Your task to perform on an android device: change the clock display to digital Image 0: 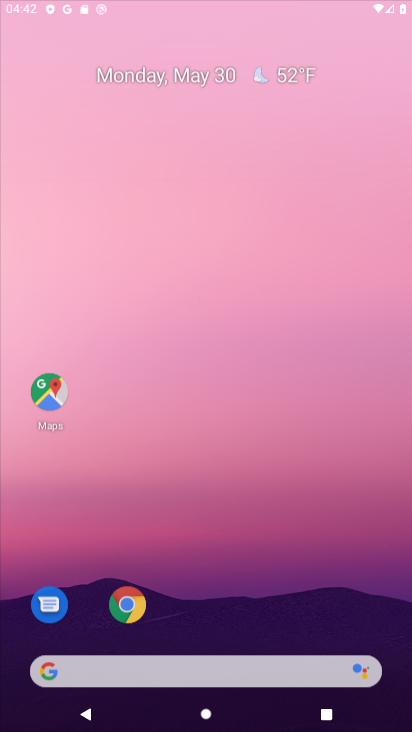
Step 0: press home button
Your task to perform on an android device: change the clock display to digital Image 1: 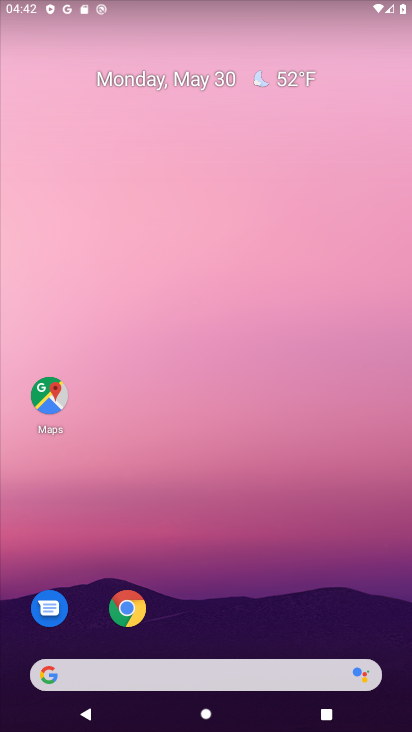
Step 1: drag from (137, 336) to (137, 302)
Your task to perform on an android device: change the clock display to digital Image 2: 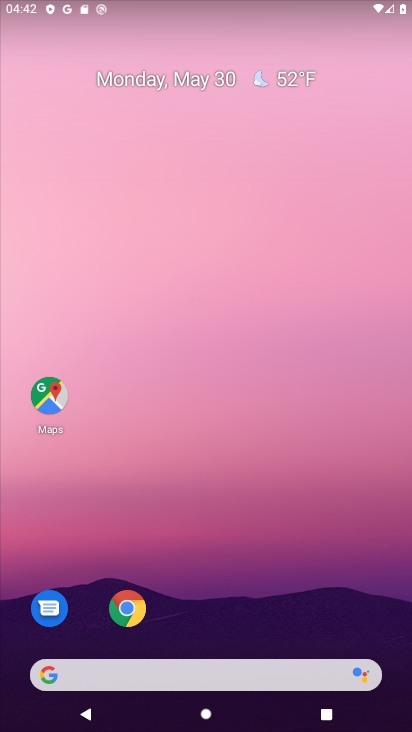
Step 2: click (314, 95)
Your task to perform on an android device: change the clock display to digital Image 3: 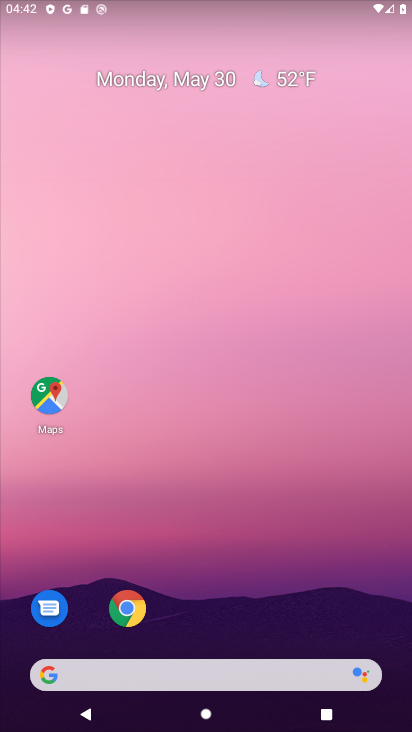
Step 3: drag from (209, 660) to (202, 104)
Your task to perform on an android device: change the clock display to digital Image 4: 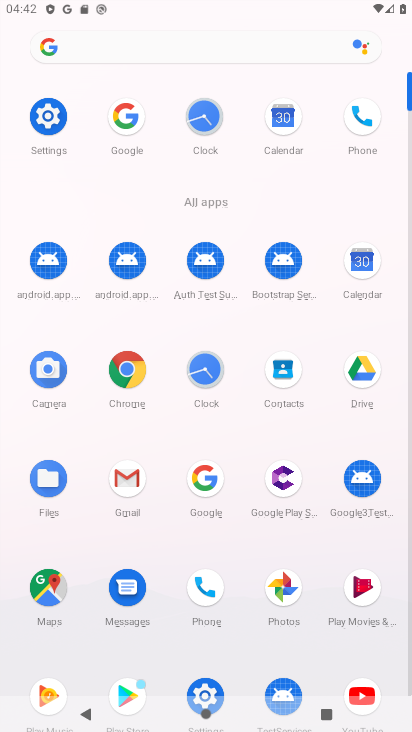
Step 4: click (51, 118)
Your task to perform on an android device: change the clock display to digital Image 5: 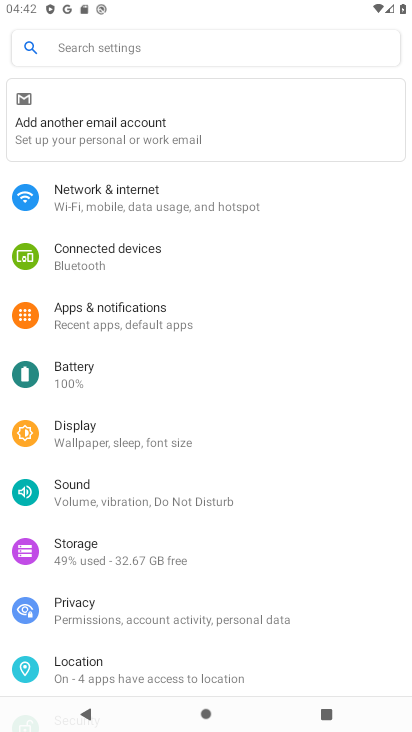
Step 5: press home button
Your task to perform on an android device: change the clock display to digital Image 6: 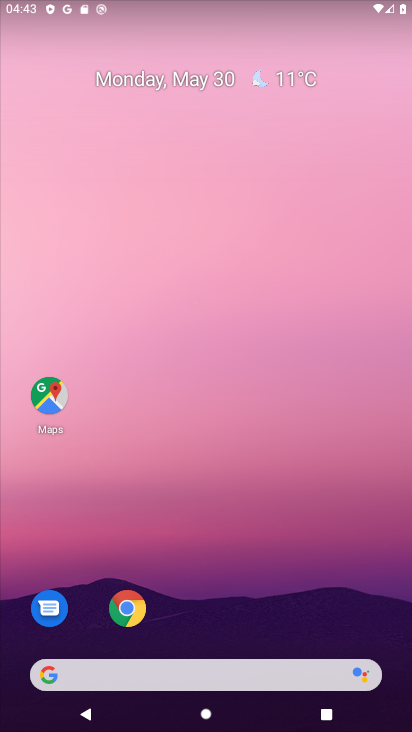
Step 6: drag from (174, 655) to (179, 204)
Your task to perform on an android device: change the clock display to digital Image 7: 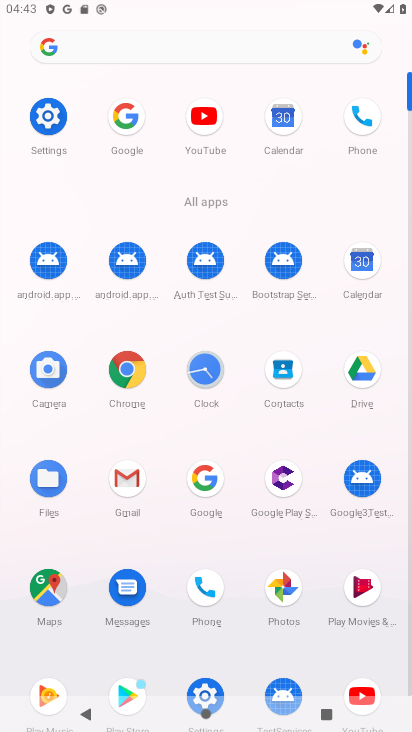
Step 7: click (207, 361)
Your task to perform on an android device: change the clock display to digital Image 8: 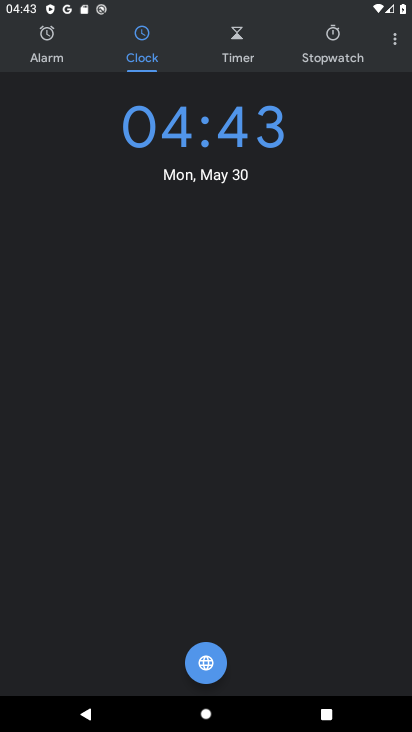
Step 8: click (399, 37)
Your task to perform on an android device: change the clock display to digital Image 9: 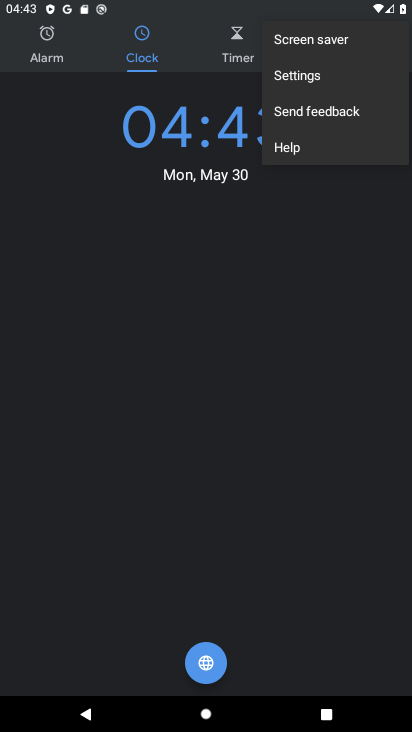
Step 9: click (293, 74)
Your task to perform on an android device: change the clock display to digital Image 10: 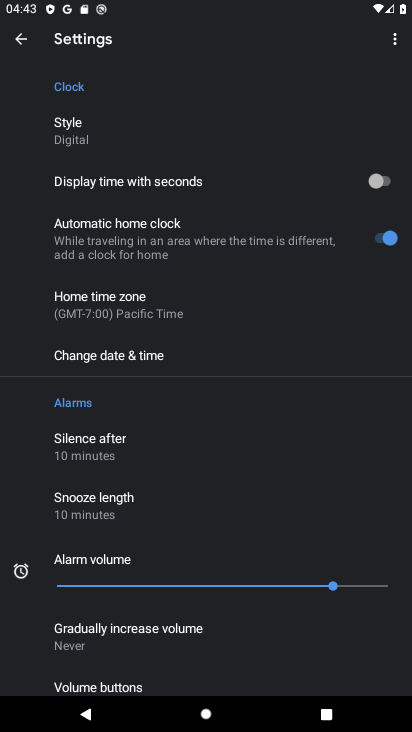
Step 10: task complete